Your task to perform on an android device: Open Google Chrome Image 0: 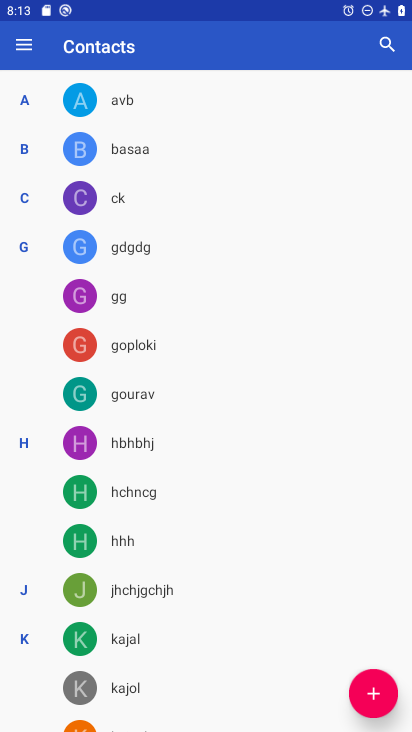
Step 0: press home button
Your task to perform on an android device: Open Google Chrome Image 1: 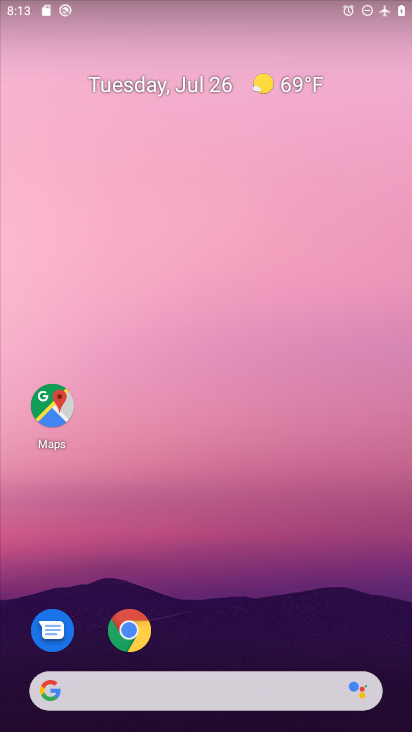
Step 1: drag from (246, 630) to (230, 257)
Your task to perform on an android device: Open Google Chrome Image 2: 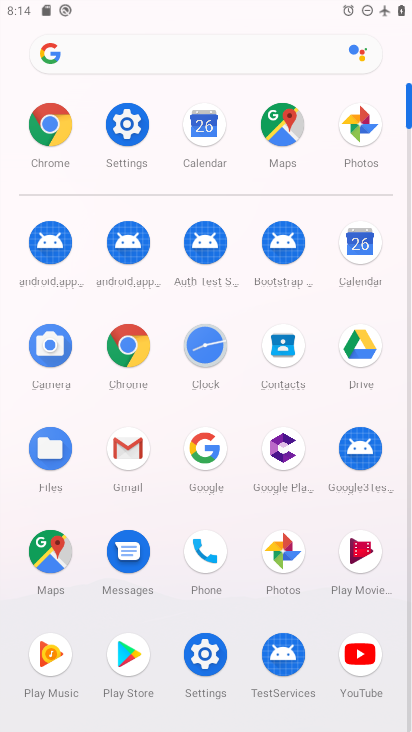
Step 2: click (133, 351)
Your task to perform on an android device: Open Google Chrome Image 3: 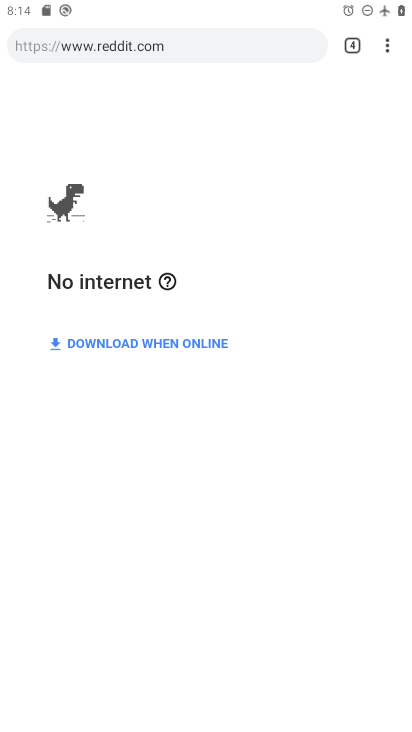
Step 3: task complete